Your task to perform on an android device: install app "Firefox Browser" Image 0: 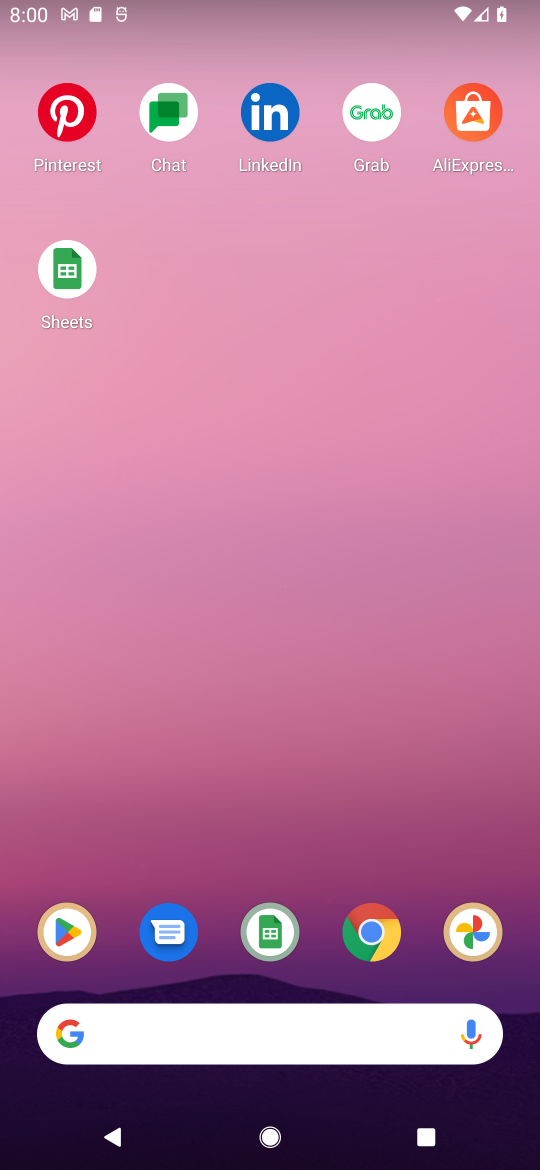
Step 0: click (66, 928)
Your task to perform on an android device: install app "Firefox Browser" Image 1: 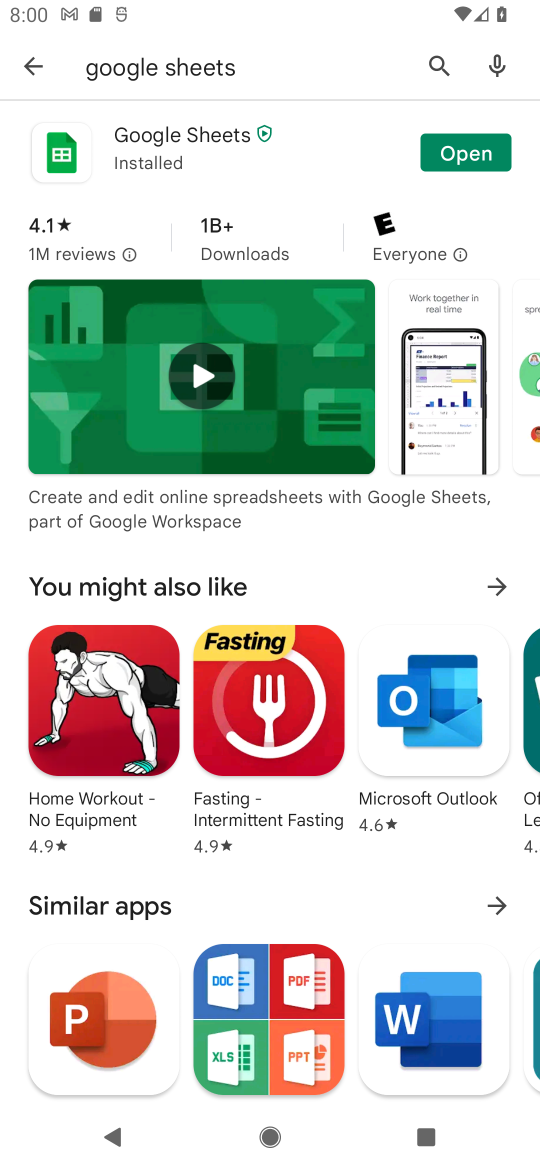
Step 1: click (243, 59)
Your task to perform on an android device: install app "Firefox Browser" Image 2: 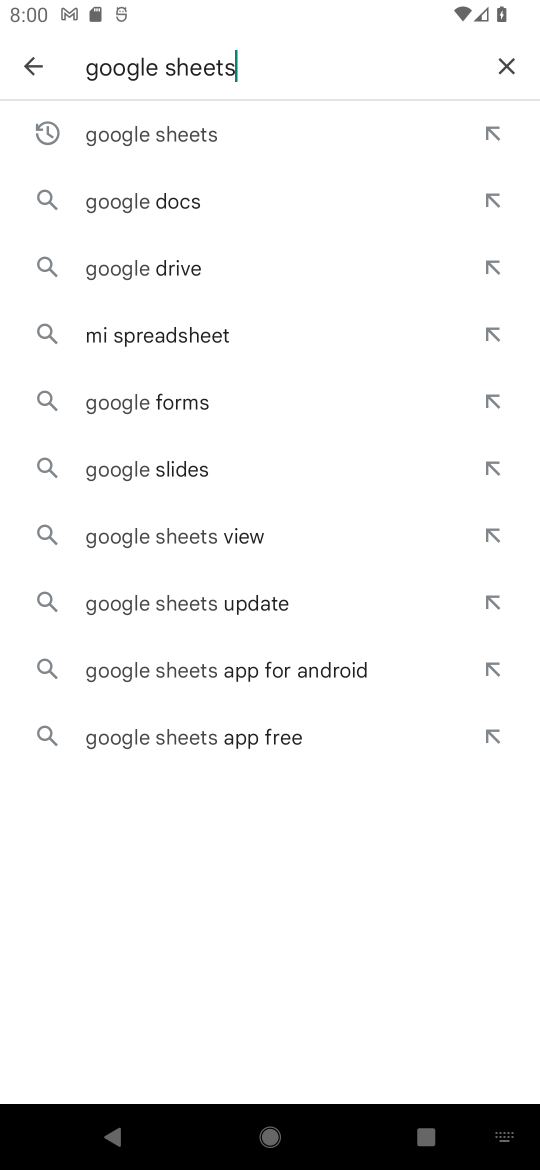
Step 2: click (509, 63)
Your task to perform on an android device: install app "Firefox Browser" Image 3: 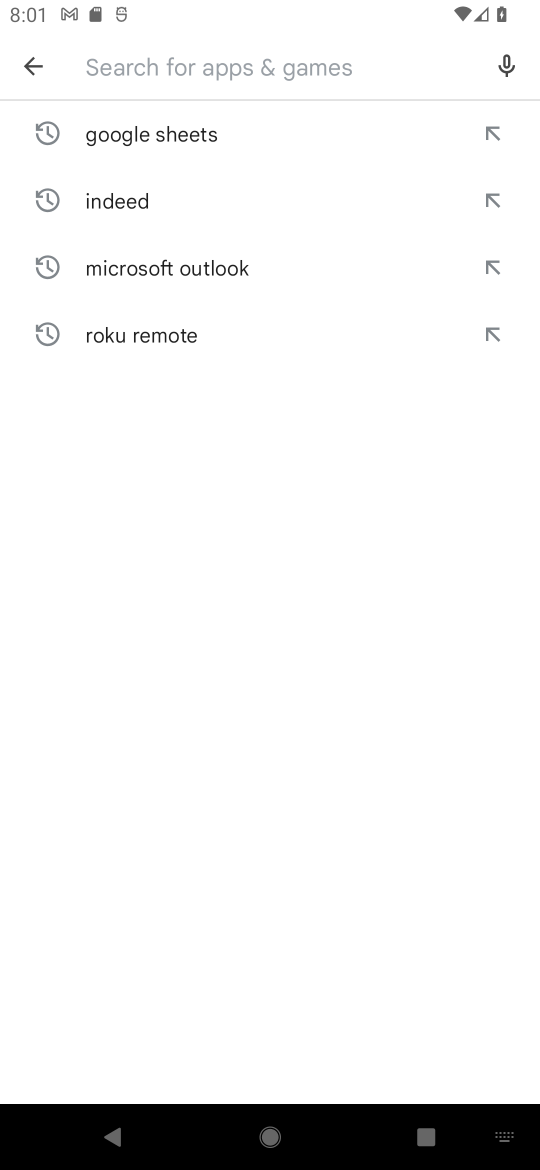
Step 3: type "firefox"
Your task to perform on an android device: install app "Firefox Browser" Image 4: 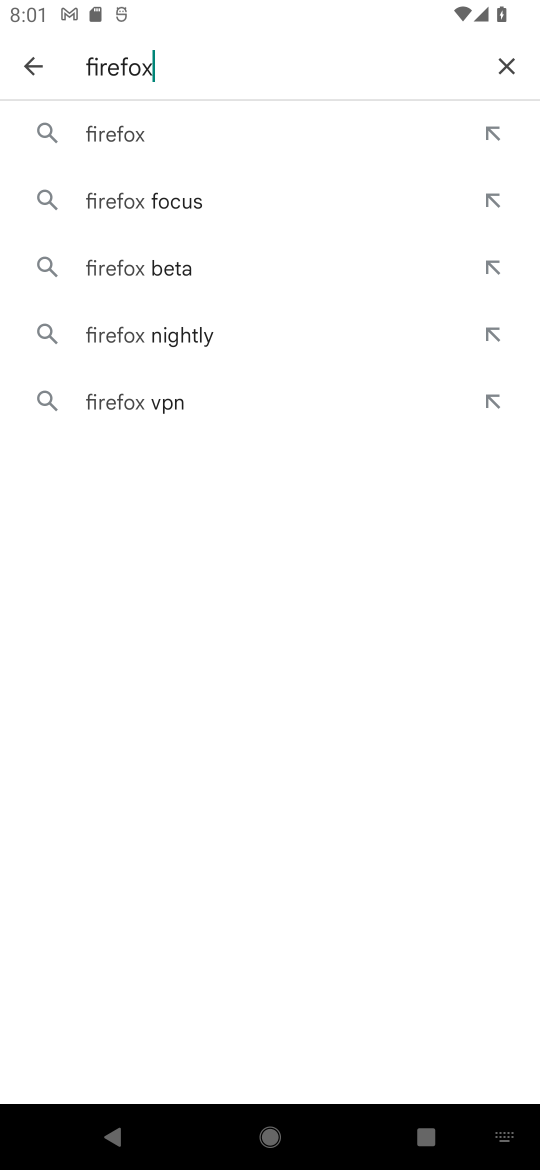
Step 4: click (178, 129)
Your task to perform on an android device: install app "Firefox Browser" Image 5: 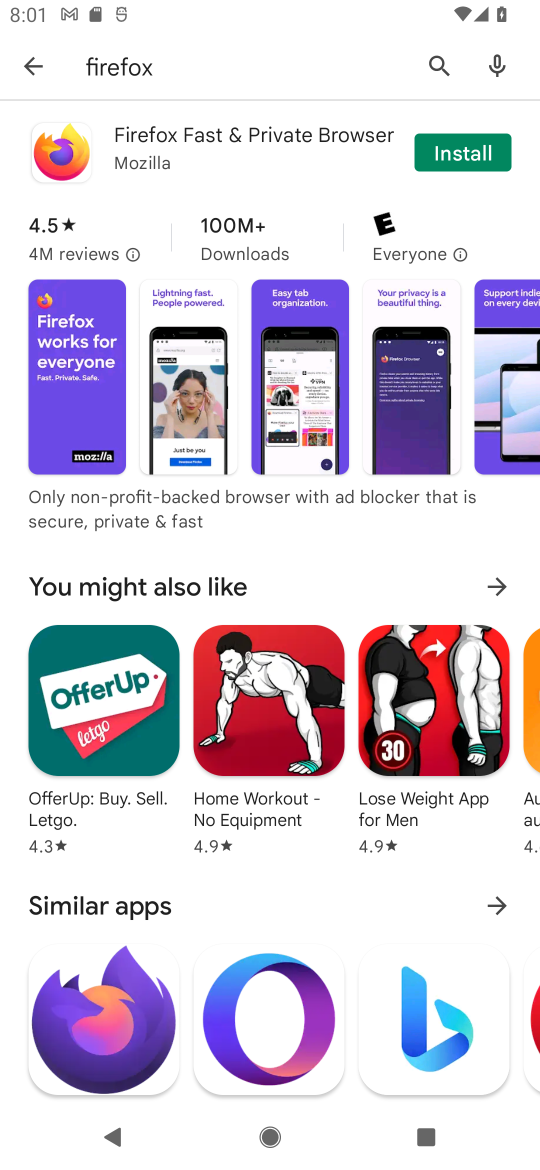
Step 5: click (498, 154)
Your task to perform on an android device: install app "Firefox Browser" Image 6: 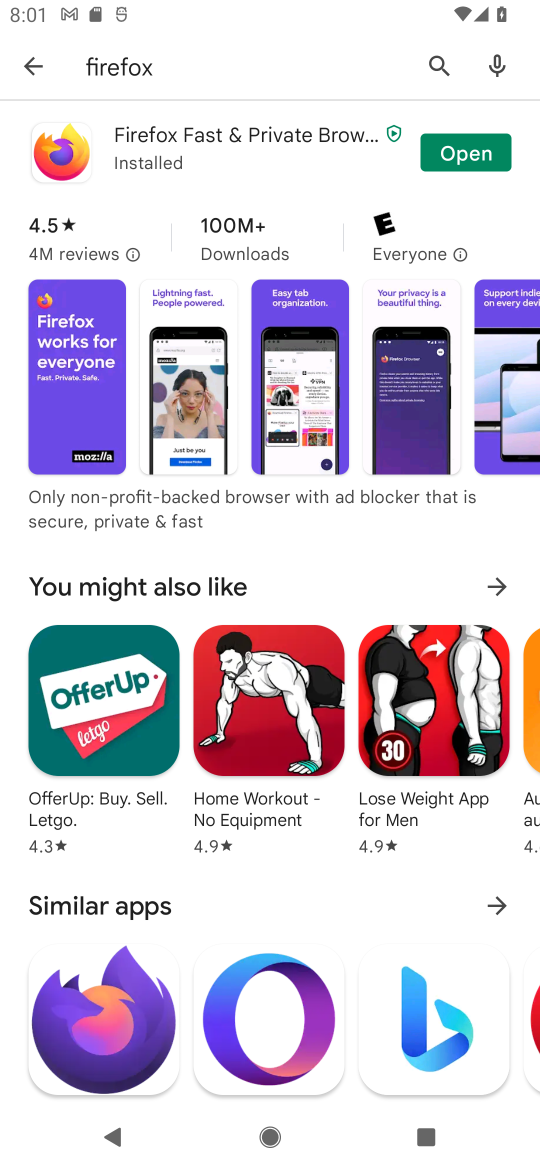
Step 6: task complete